Your task to perform on an android device: Open the downloads Image 0: 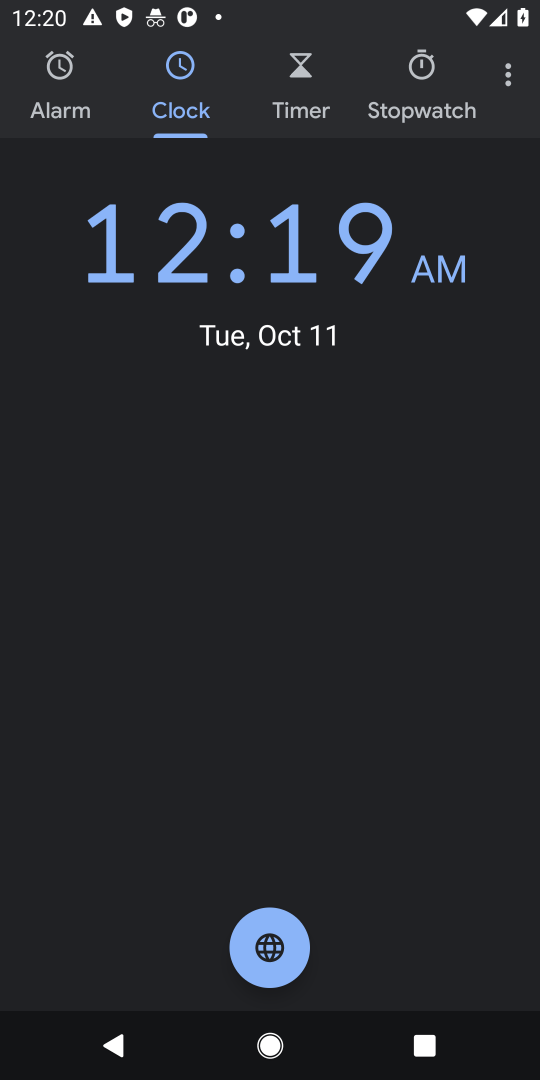
Step 0: press home button
Your task to perform on an android device: Open the downloads Image 1: 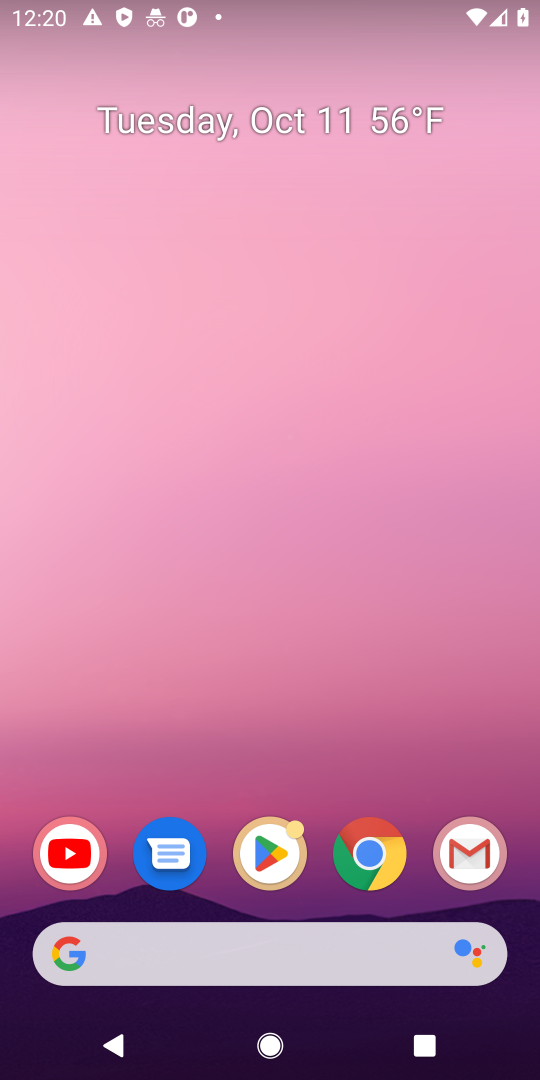
Step 1: drag from (315, 806) to (381, 27)
Your task to perform on an android device: Open the downloads Image 2: 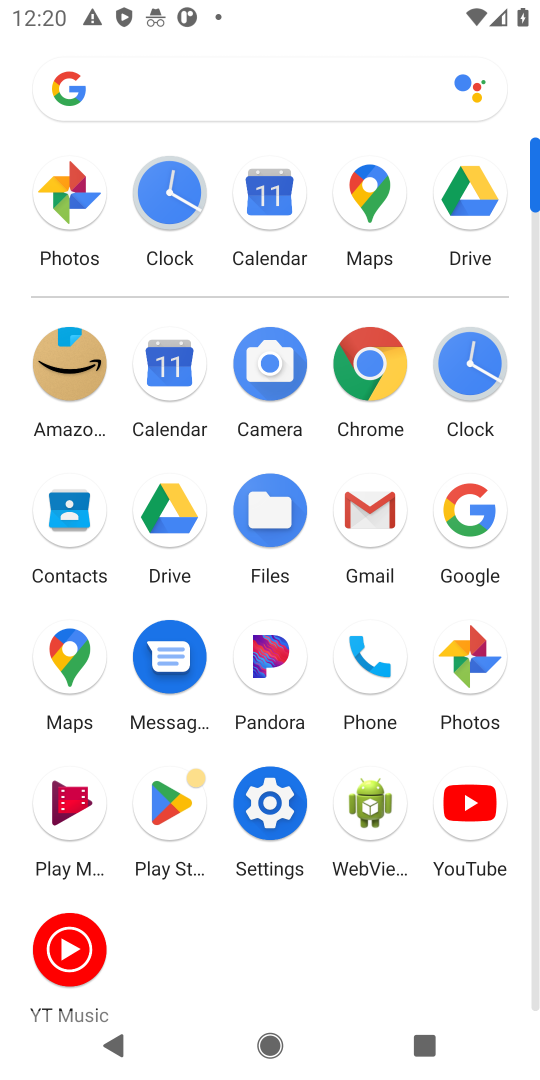
Step 2: click (247, 812)
Your task to perform on an android device: Open the downloads Image 3: 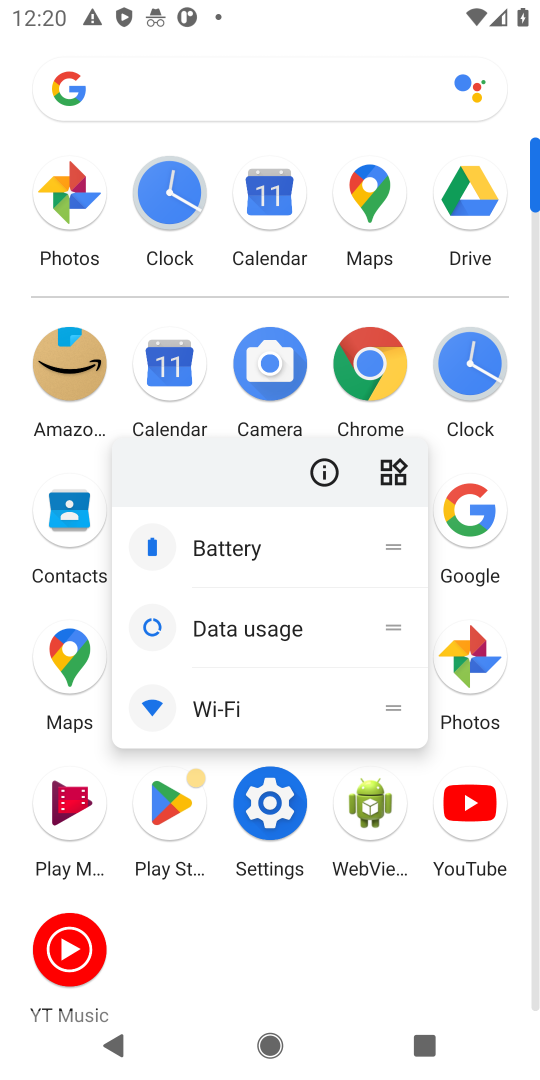
Step 3: click (264, 812)
Your task to perform on an android device: Open the downloads Image 4: 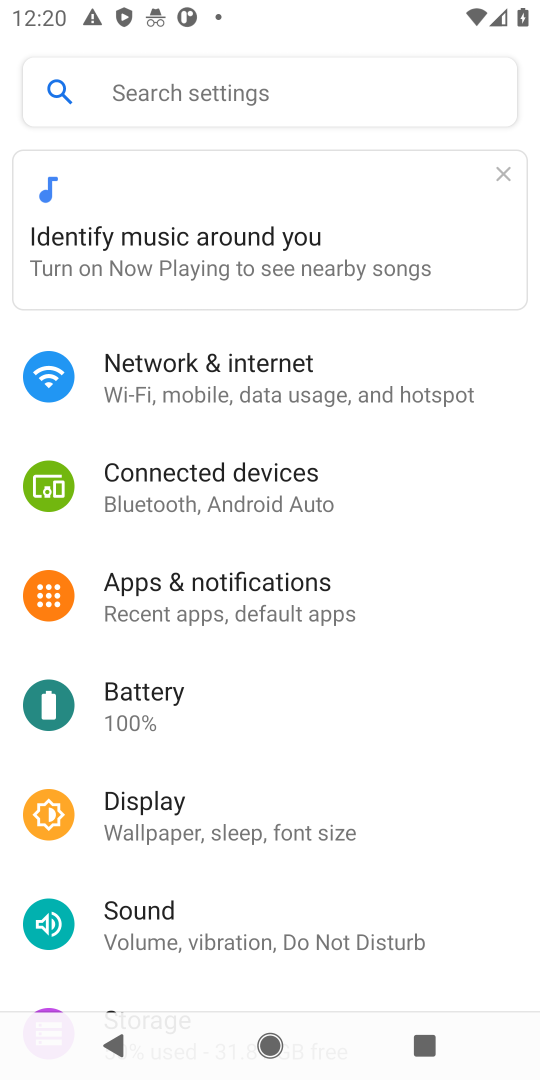
Step 4: drag from (202, 869) to (314, 236)
Your task to perform on an android device: Open the downloads Image 5: 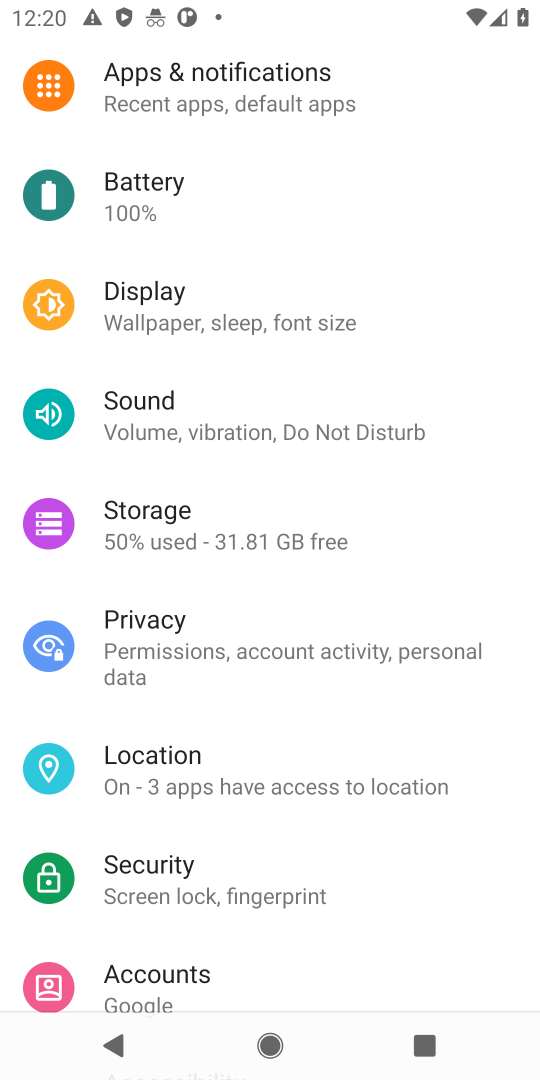
Step 5: press back button
Your task to perform on an android device: Open the downloads Image 6: 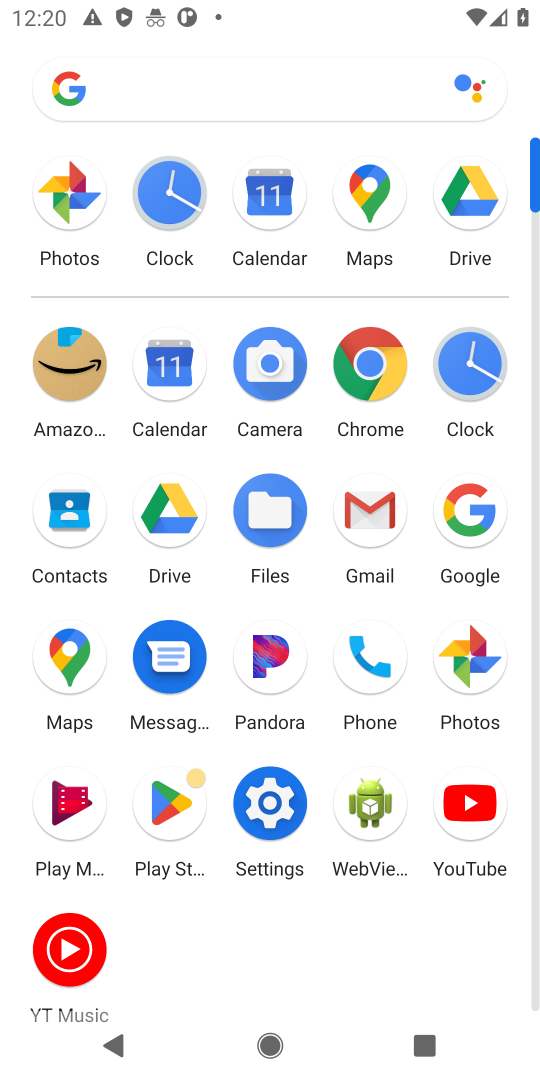
Step 6: click (370, 373)
Your task to perform on an android device: Open the downloads Image 7: 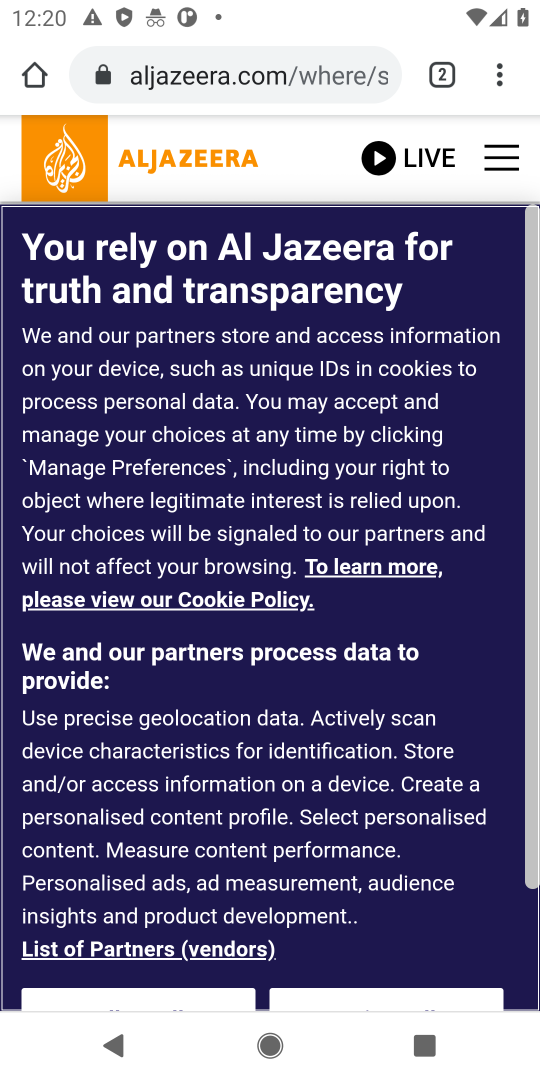
Step 7: click (499, 67)
Your task to perform on an android device: Open the downloads Image 8: 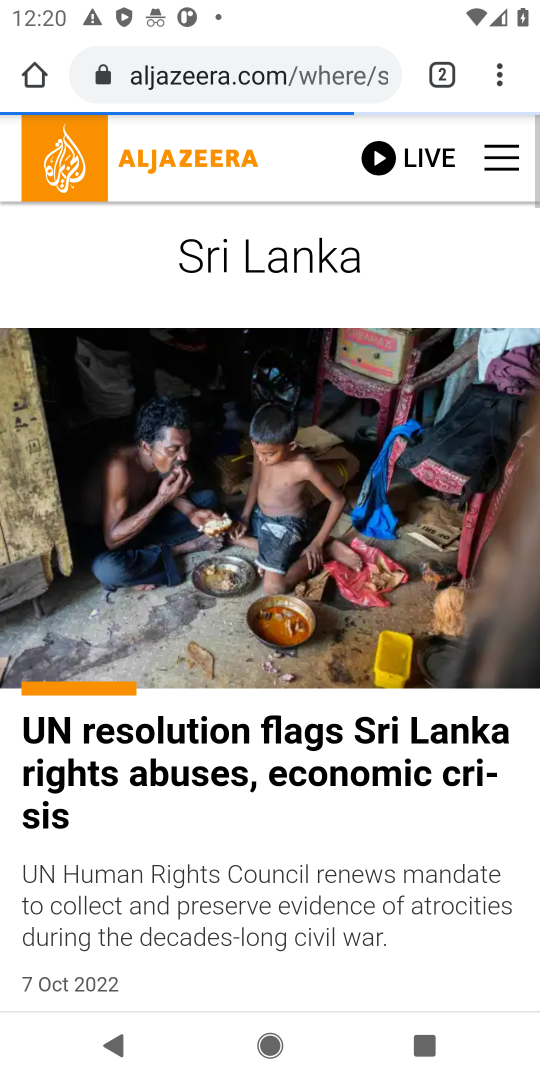
Step 8: task complete